Your task to perform on an android device: change timer sound Image 0: 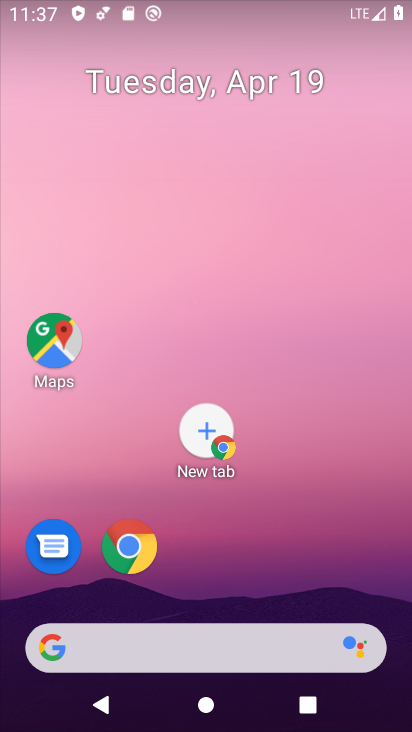
Step 0: drag from (262, 571) to (330, 26)
Your task to perform on an android device: change timer sound Image 1: 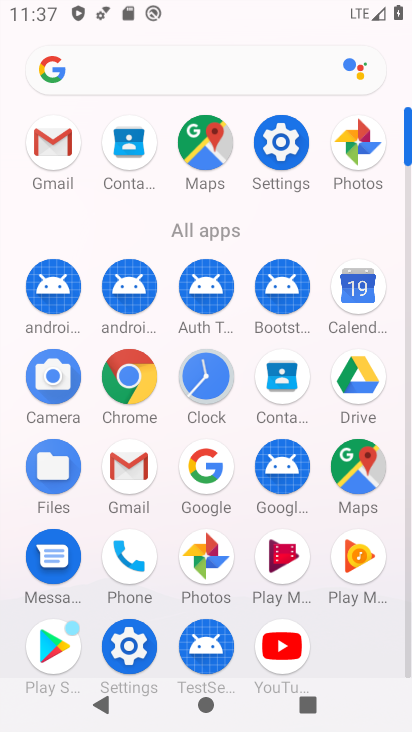
Step 1: click (211, 391)
Your task to perform on an android device: change timer sound Image 2: 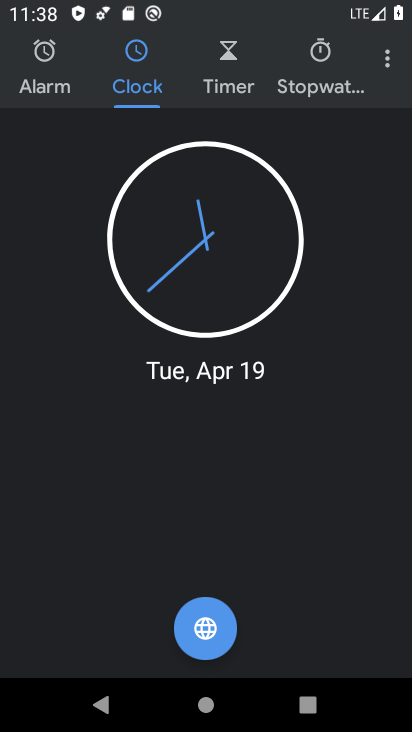
Step 2: click (376, 63)
Your task to perform on an android device: change timer sound Image 3: 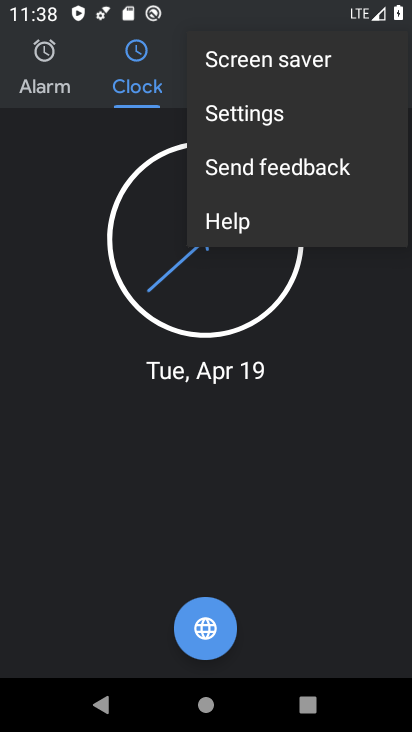
Step 3: click (290, 107)
Your task to perform on an android device: change timer sound Image 4: 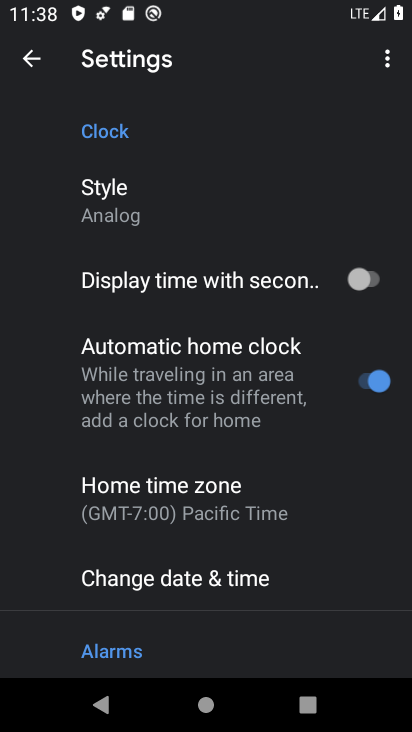
Step 4: drag from (191, 585) to (155, 164)
Your task to perform on an android device: change timer sound Image 5: 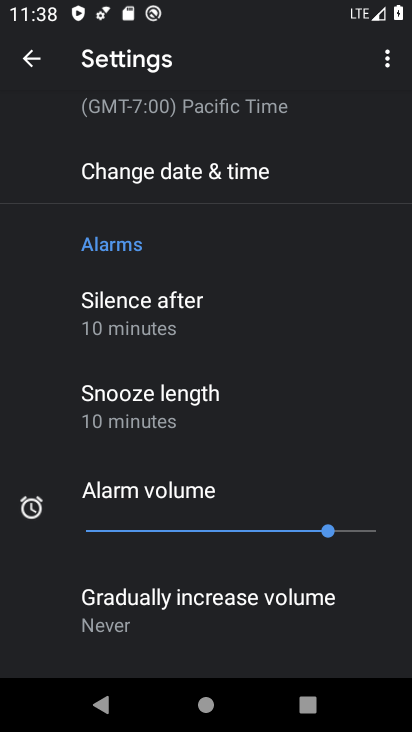
Step 5: drag from (221, 498) to (192, 5)
Your task to perform on an android device: change timer sound Image 6: 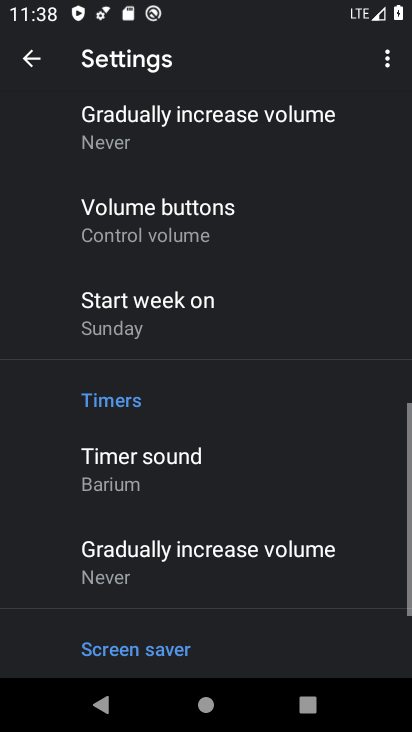
Step 6: click (177, 476)
Your task to perform on an android device: change timer sound Image 7: 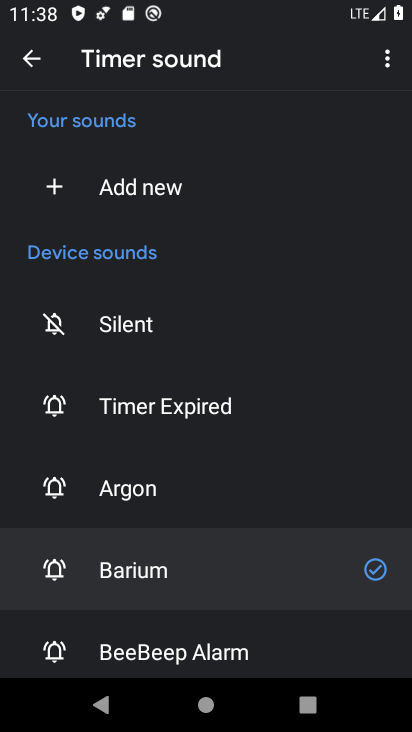
Step 7: click (203, 486)
Your task to perform on an android device: change timer sound Image 8: 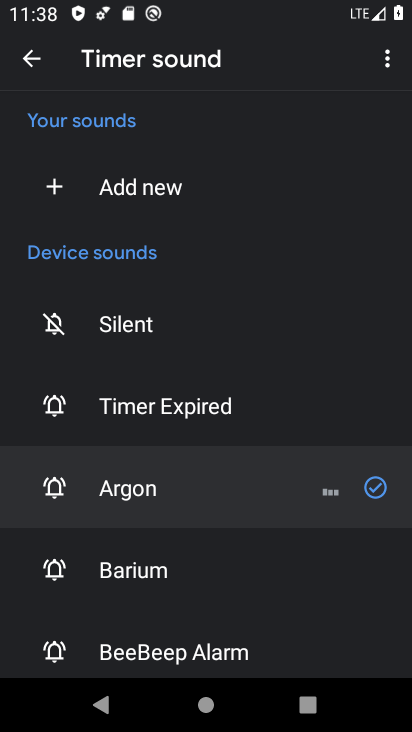
Step 8: task complete